Your task to perform on an android device: refresh tabs in the chrome app Image 0: 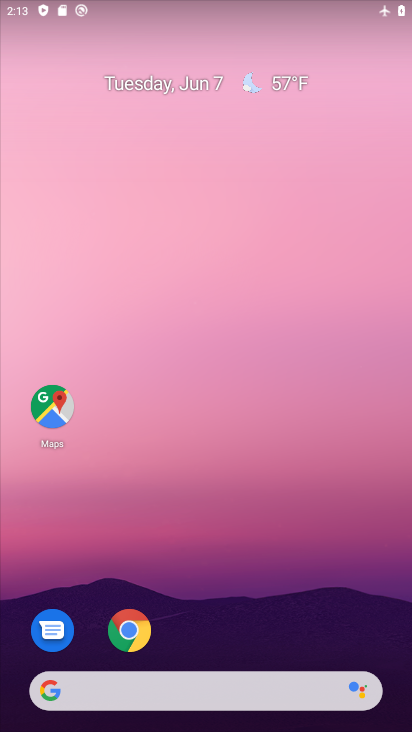
Step 0: click (110, 621)
Your task to perform on an android device: refresh tabs in the chrome app Image 1: 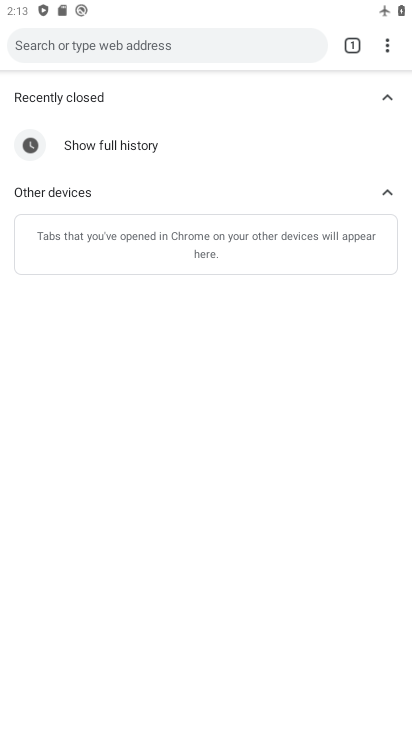
Step 1: click (388, 41)
Your task to perform on an android device: refresh tabs in the chrome app Image 2: 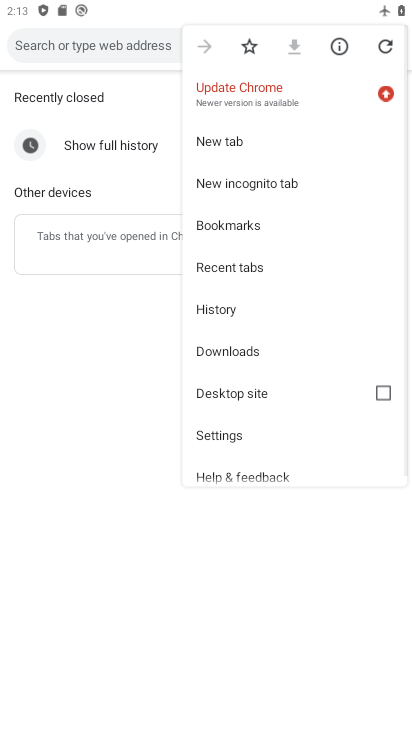
Step 2: click (381, 45)
Your task to perform on an android device: refresh tabs in the chrome app Image 3: 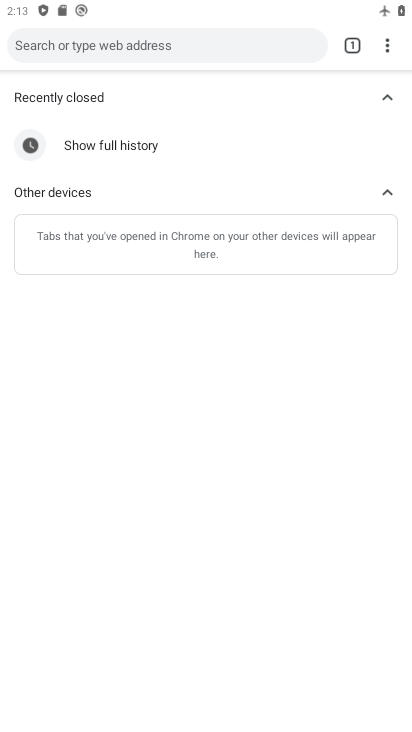
Step 3: task complete